Your task to perform on an android device: find photos in the google photos app Image 0: 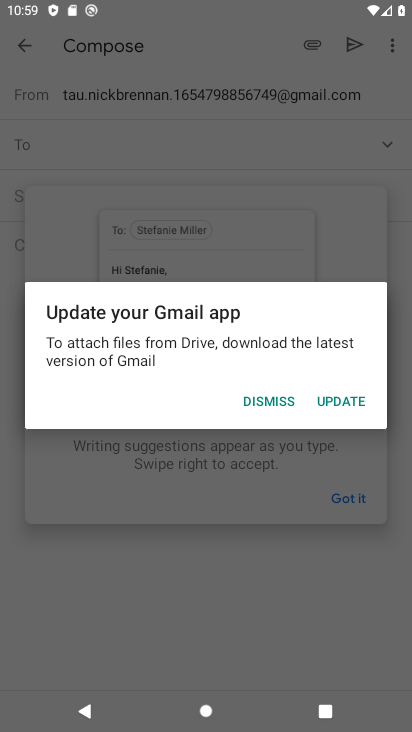
Step 0: press home button
Your task to perform on an android device: find photos in the google photos app Image 1: 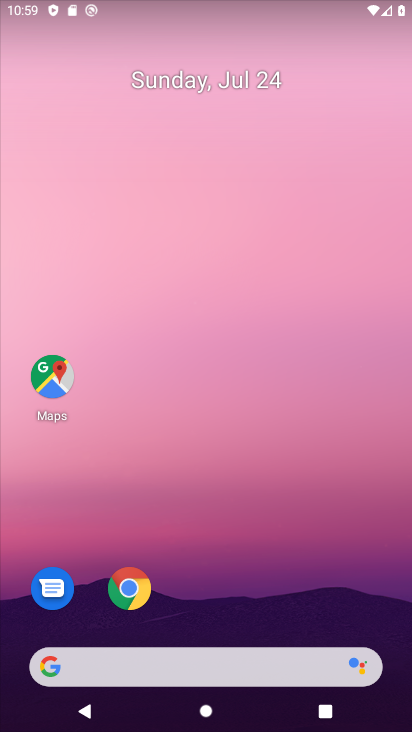
Step 1: drag from (367, 611) to (181, 11)
Your task to perform on an android device: find photos in the google photos app Image 2: 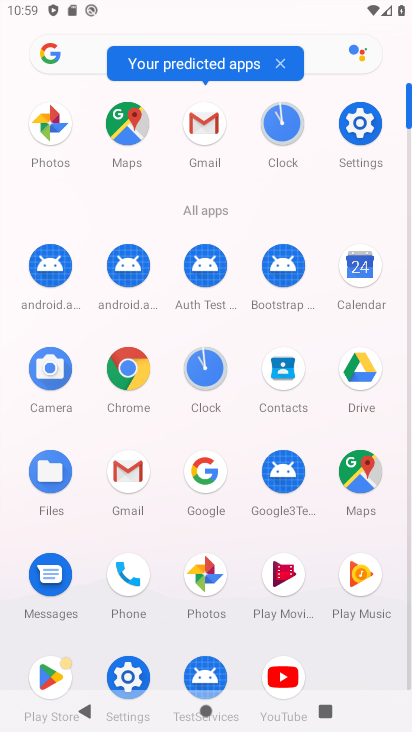
Step 2: click (191, 586)
Your task to perform on an android device: find photos in the google photos app Image 3: 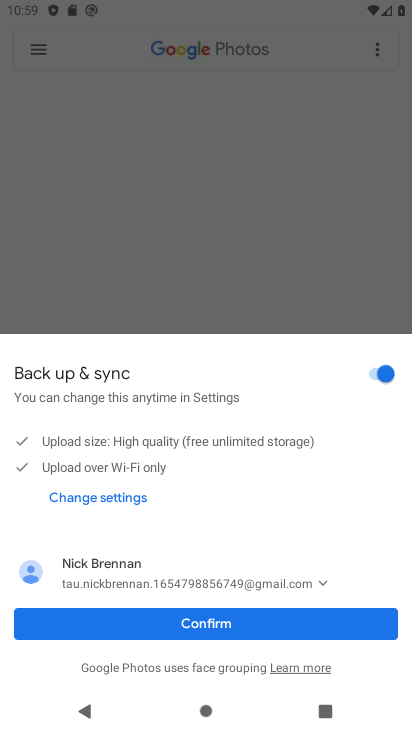
Step 3: click (205, 622)
Your task to perform on an android device: find photos in the google photos app Image 4: 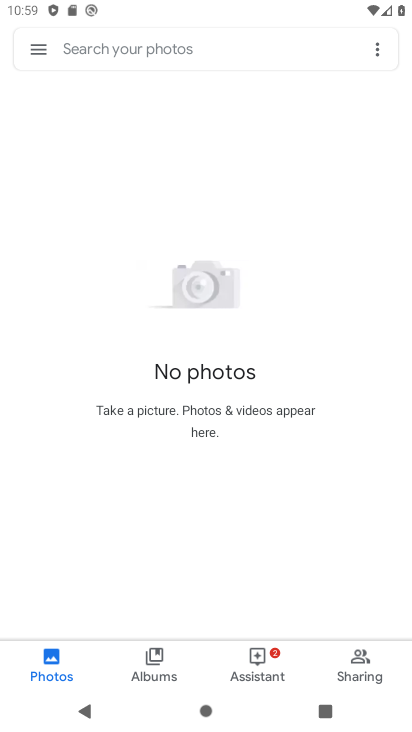
Step 4: task complete